Your task to perform on an android device: Find coffee shops on Maps Image 0: 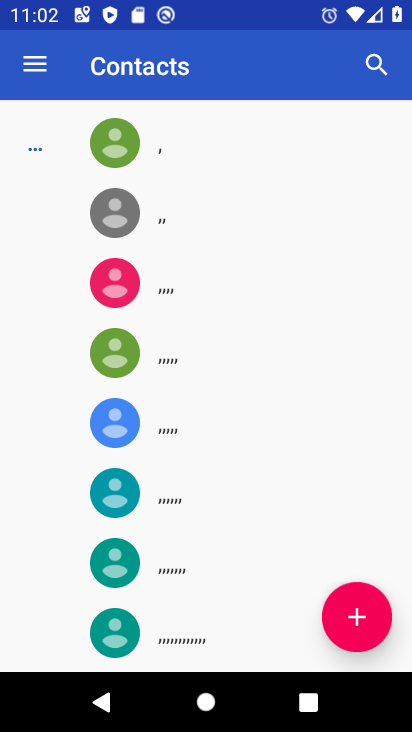
Step 0: press home button
Your task to perform on an android device: Find coffee shops on Maps Image 1: 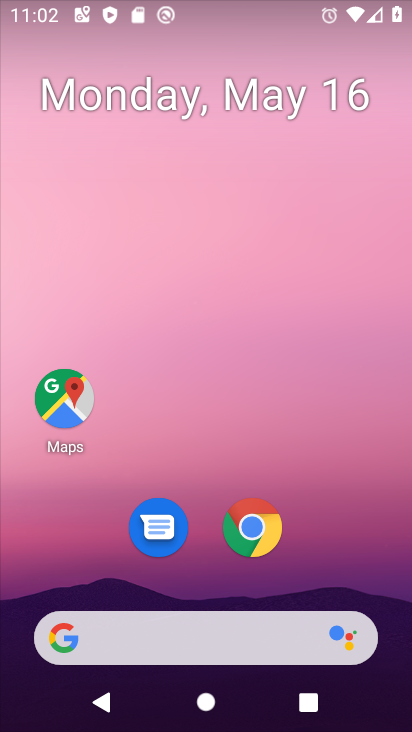
Step 1: click (56, 417)
Your task to perform on an android device: Find coffee shops on Maps Image 2: 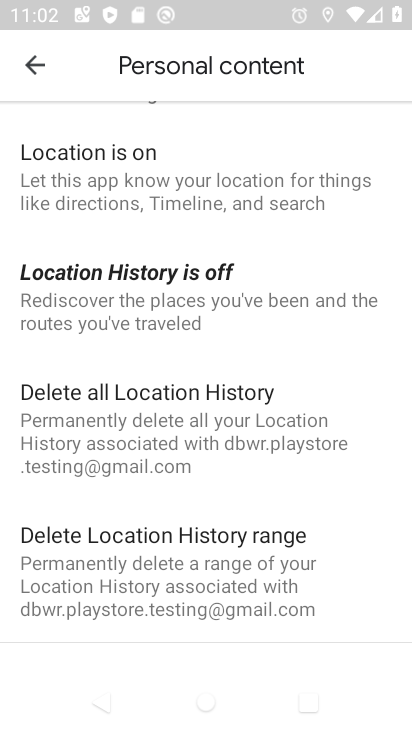
Step 2: click (31, 67)
Your task to perform on an android device: Find coffee shops on Maps Image 3: 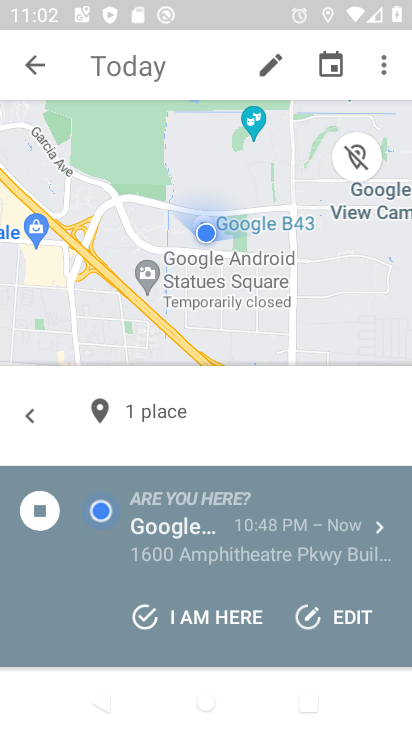
Step 3: click (31, 67)
Your task to perform on an android device: Find coffee shops on Maps Image 4: 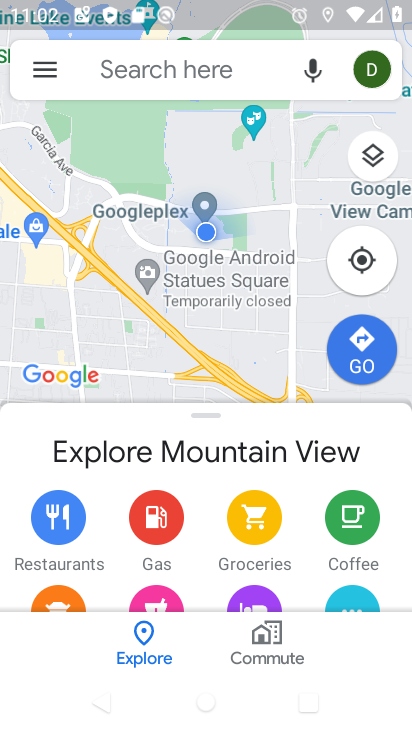
Step 4: click (112, 67)
Your task to perform on an android device: Find coffee shops on Maps Image 5: 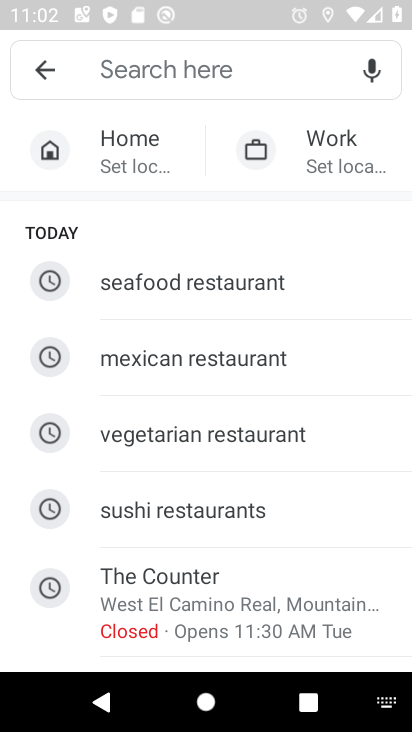
Step 5: type "coffee shop"
Your task to perform on an android device: Find coffee shops on Maps Image 6: 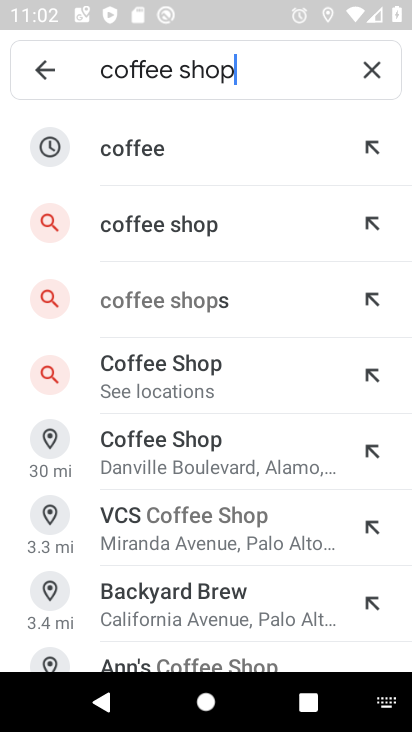
Step 6: click (178, 227)
Your task to perform on an android device: Find coffee shops on Maps Image 7: 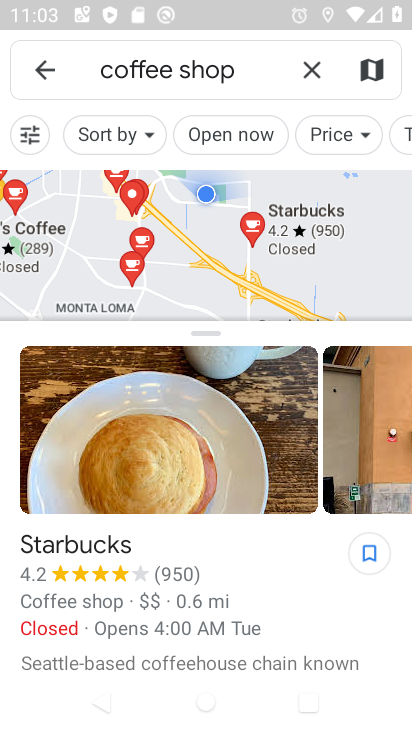
Step 7: task complete